Your task to perform on an android device: Go to internet settings Image 0: 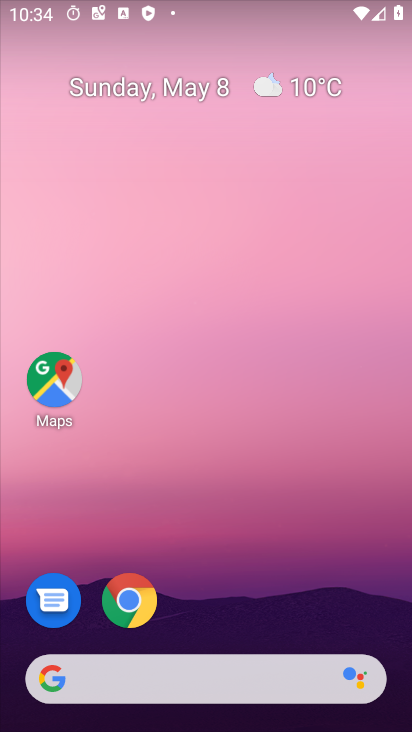
Step 0: drag from (262, 652) to (332, 271)
Your task to perform on an android device: Go to internet settings Image 1: 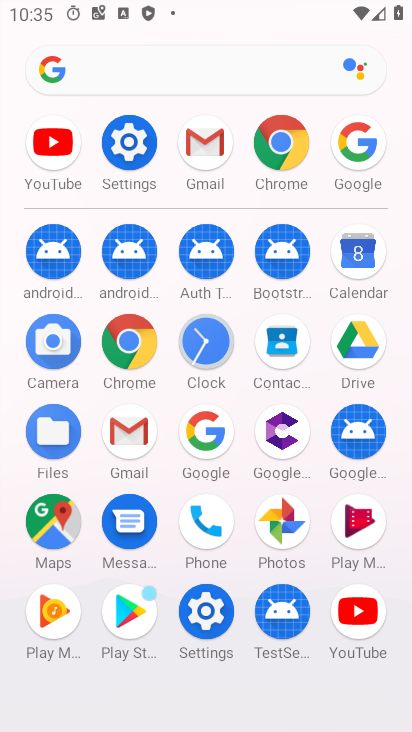
Step 1: click (145, 158)
Your task to perform on an android device: Go to internet settings Image 2: 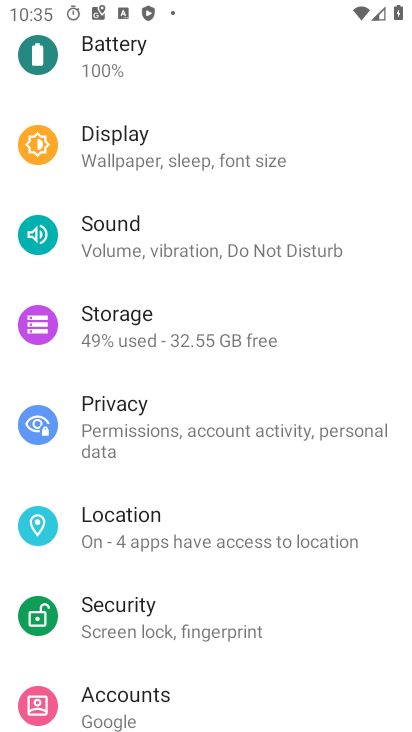
Step 2: drag from (153, 219) to (159, 450)
Your task to perform on an android device: Go to internet settings Image 3: 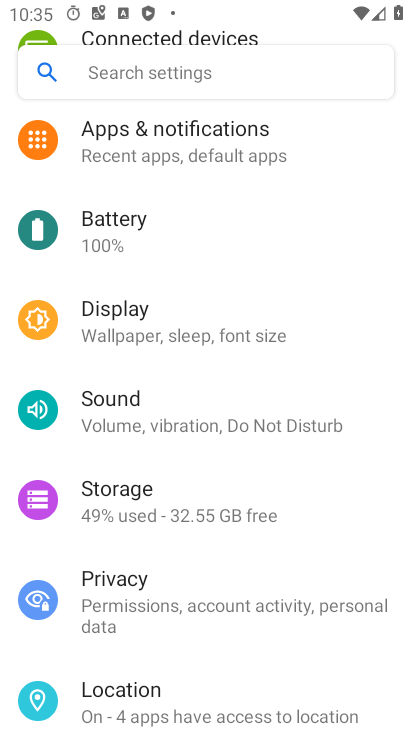
Step 3: drag from (254, 257) to (239, 498)
Your task to perform on an android device: Go to internet settings Image 4: 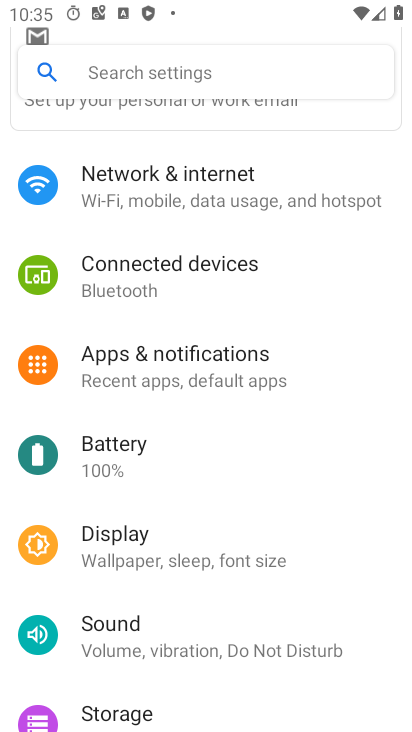
Step 4: drag from (257, 316) to (245, 515)
Your task to perform on an android device: Go to internet settings Image 5: 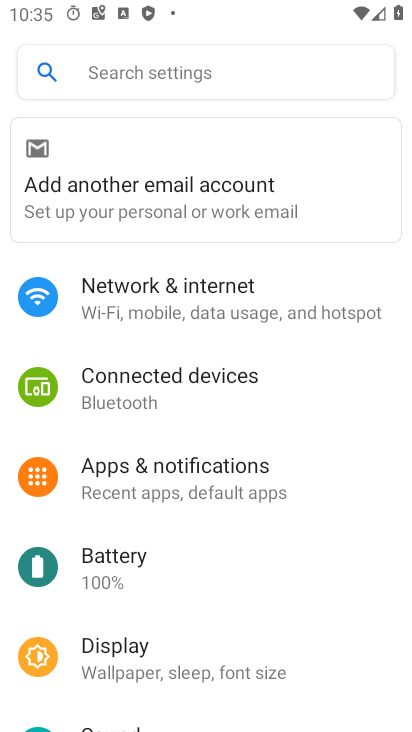
Step 5: click (233, 306)
Your task to perform on an android device: Go to internet settings Image 6: 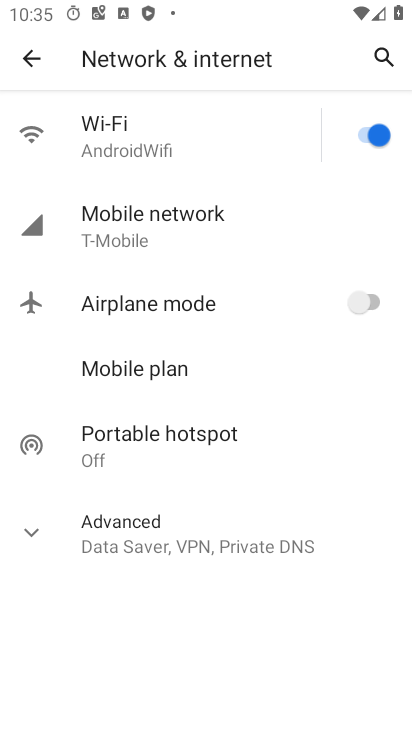
Step 6: click (213, 233)
Your task to perform on an android device: Go to internet settings Image 7: 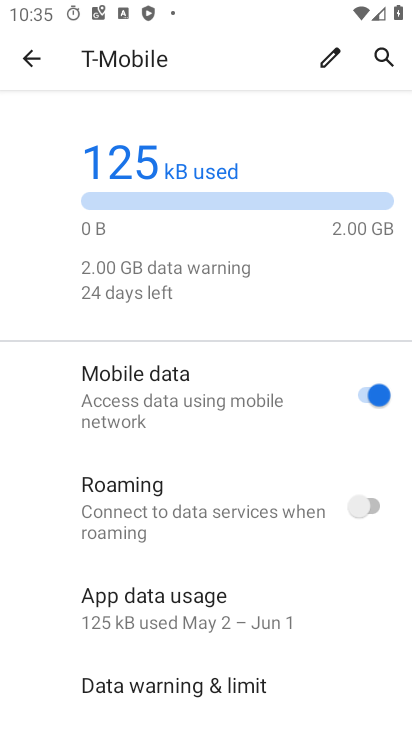
Step 7: task complete